Your task to perform on an android device: Go to Google maps Image 0: 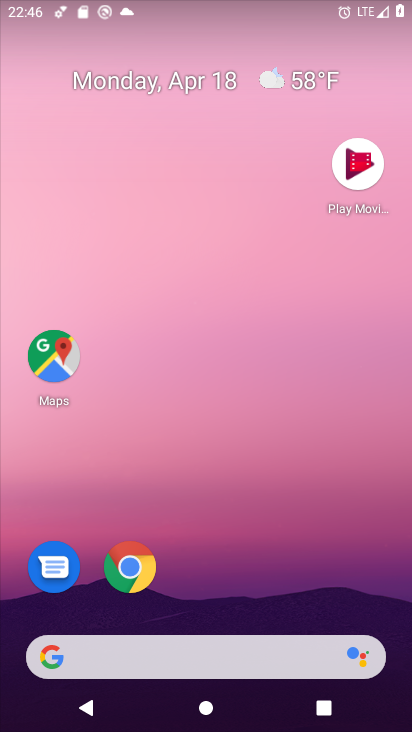
Step 0: click (238, 261)
Your task to perform on an android device: Go to Google maps Image 1: 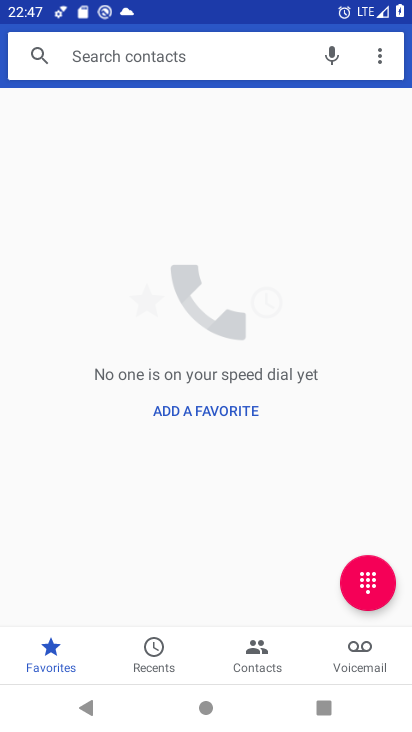
Step 1: drag from (216, 607) to (241, 320)
Your task to perform on an android device: Go to Google maps Image 2: 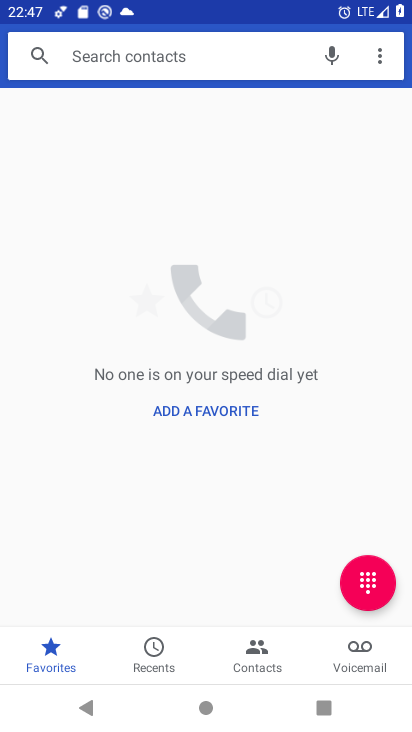
Step 2: press home button
Your task to perform on an android device: Go to Google maps Image 3: 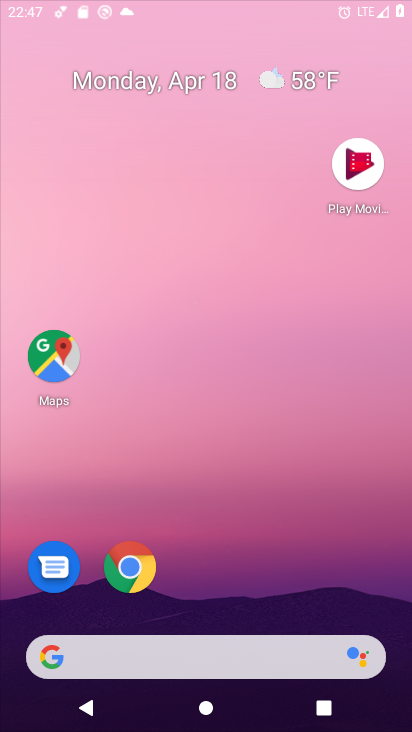
Step 3: drag from (142, 568) to (191, 379)
Your task to perform on an android device: Go to Google maps Image 4: 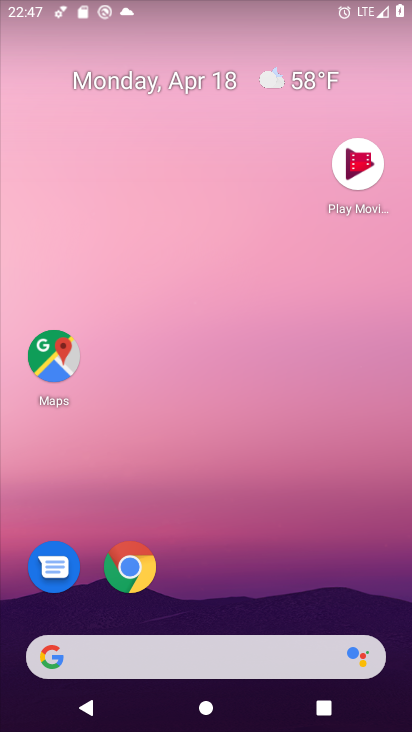
Step 4: drag from (191, 558) to (290, 110)
Your task to perform on an android device: Go to Google maps Image 5: 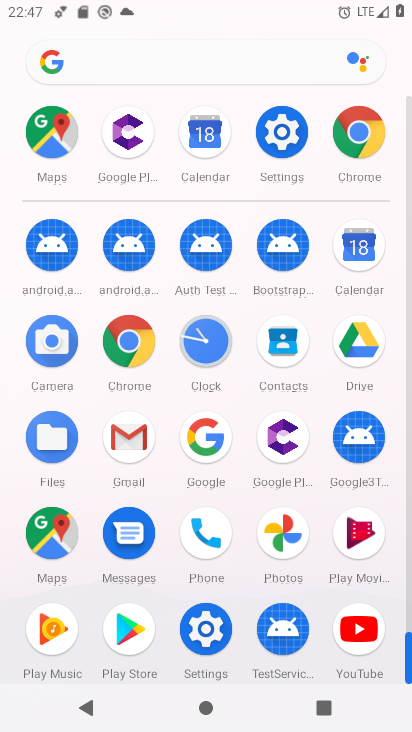
Step 5: click (51, 528)
Your task to perform on an android device: Go to Google maps Image 6: 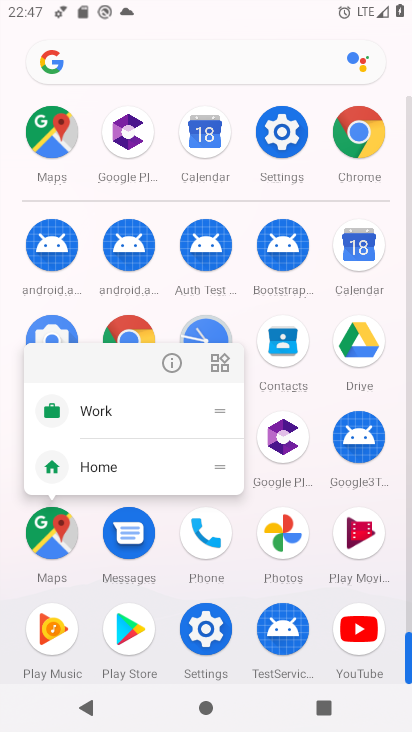
Step 6: click (180, 373)
Your task to perform on an android device: Go to Google maps Image 7: 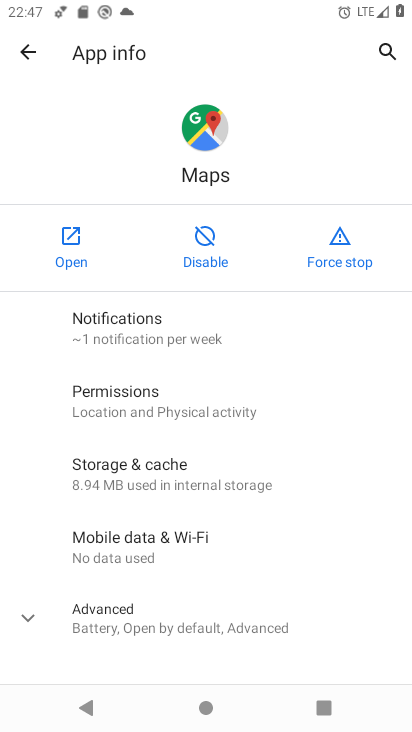
Step 7: click (79, 249)
Your task to perform on an android device: Go to Google maps Image 8: 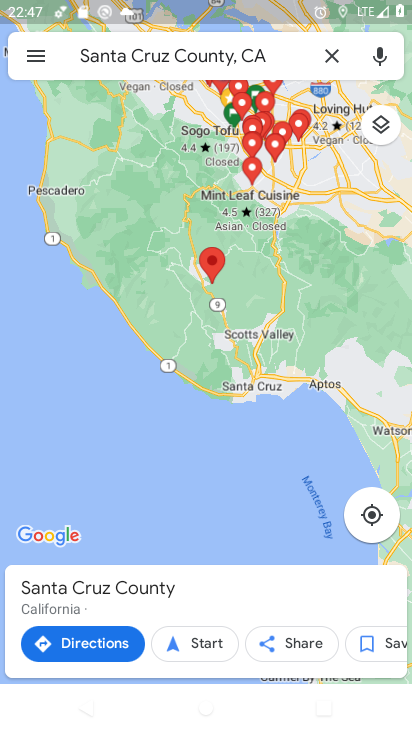
Step 8: task complete